Your task to perform on an android device: toggle priority inbox in the gmail app Image 0: 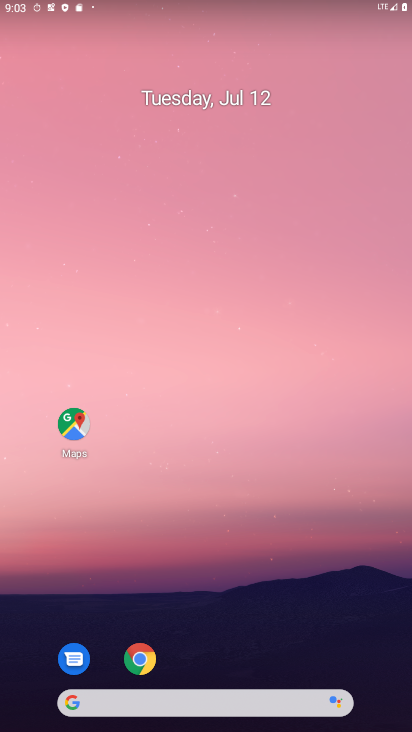
Step 0: drag from (379, 685) to (233, 8)
Your task to perform on an android device: toggle priority inbox in the gmail app Image 1: 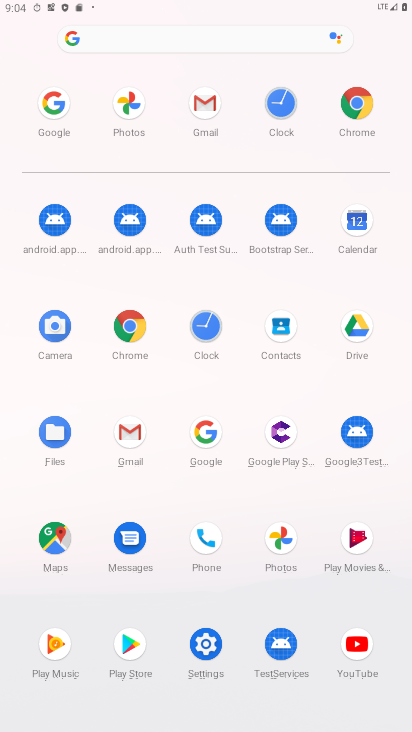
Step 1: click (139, 431)
Your task to perform on an android device: toggle priority inbox in the gmail app Image 2: 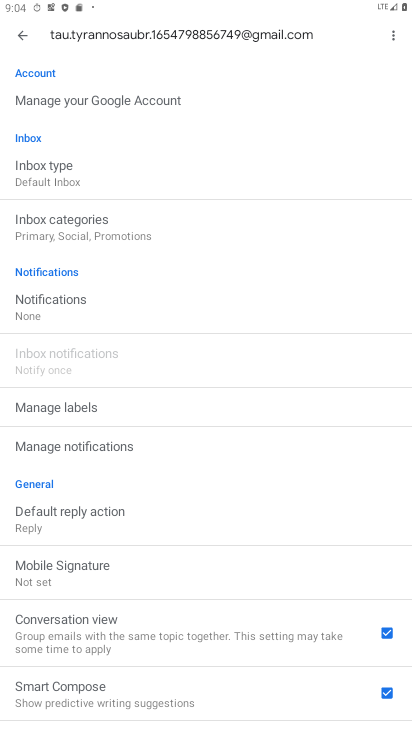
Step 2: click (68, 181)
Your task to perform on an android device: toggle priority inbox in the gmail app Image 3: 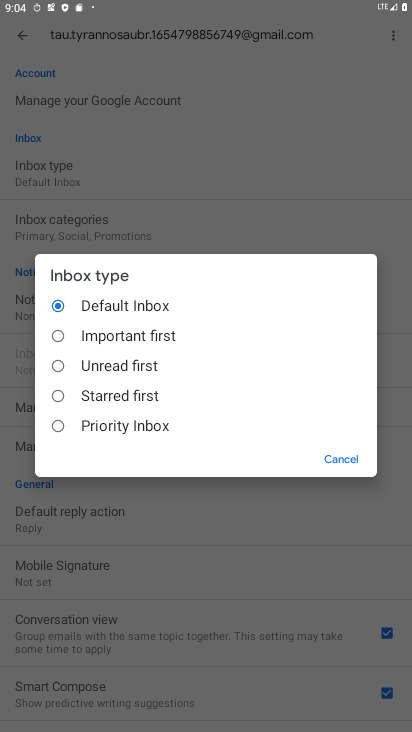
Step 3: click (59, 330)
Your task to perform on an android device: toggle priority inbox in the gmail app Image 4: 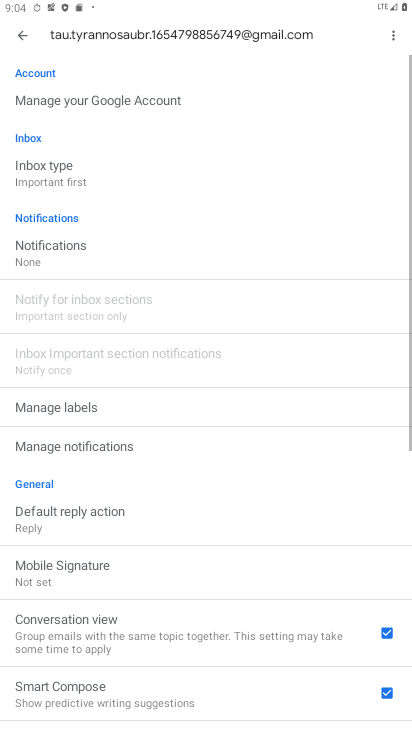
Step 4: task complete